Your task to perform on an android device: Search for sushi restaurants on Maps Image 0: 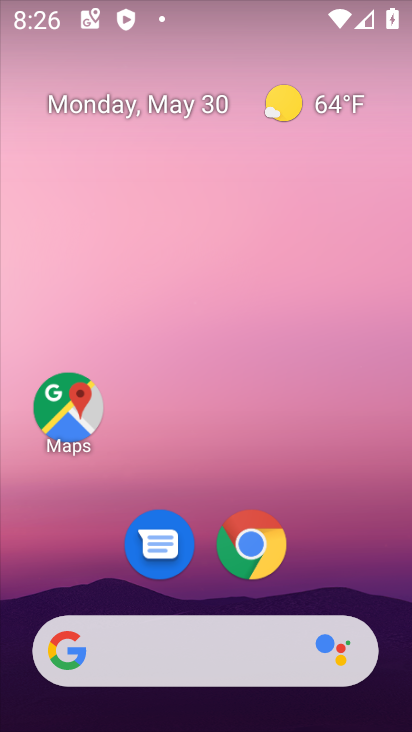
Step 0: click (65, 399)
Your task to perform on an android device: Search for sushi restaurants on Maps Image 1: 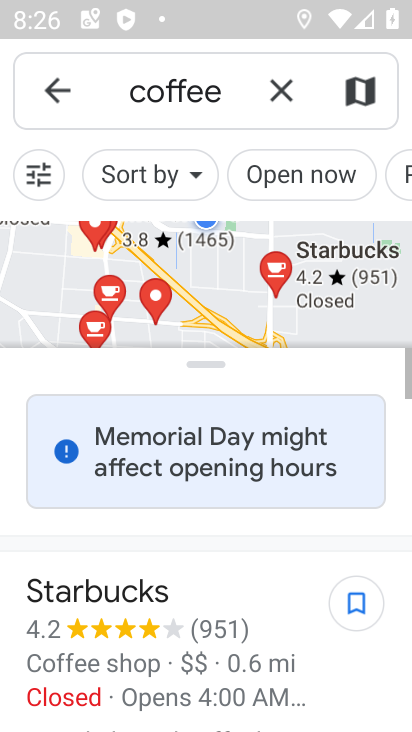
Step 1: click (271, 95)
Your task to perform on an android device: Search for sushi restaurants on Maps Image 2: 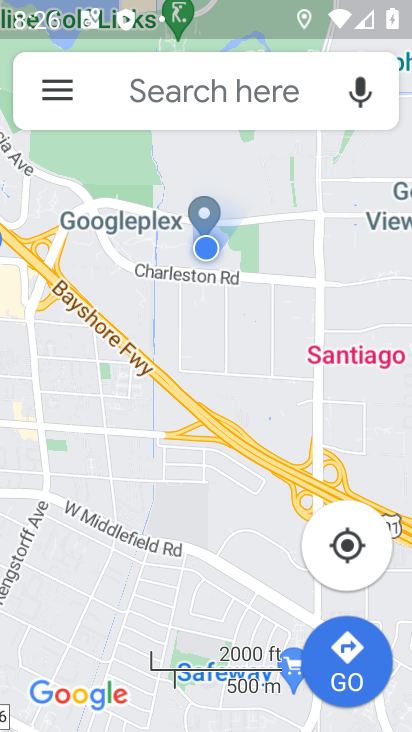
Step 2: click (256, 93)
Your task to perform on an android device: Search for sushi restaurants on Maps Image 3: 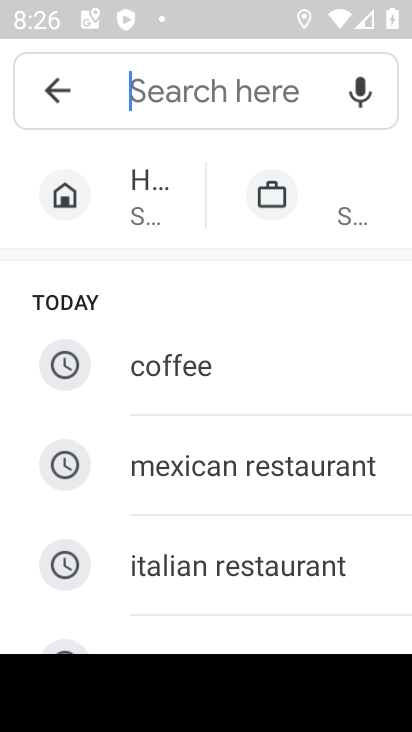
Step 3: drag from (270, 524) to (204, 144)
Your task to perform on an android device: Search for sushi restaurants on Maps Image 4: 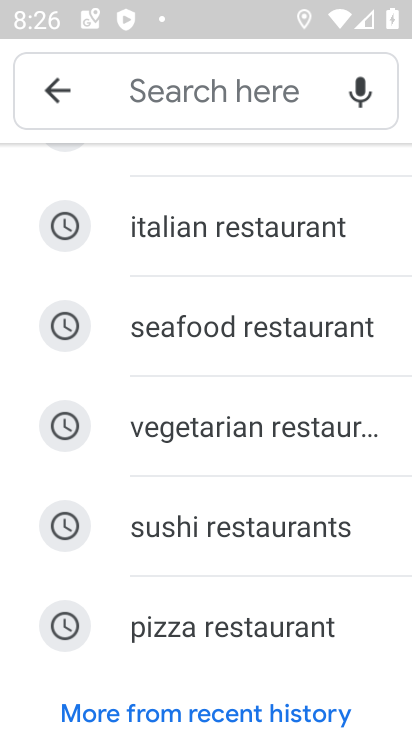
Step 4: click (265, 516)
Your task to perform on an android device: Search for sushi restaurants on Maps Image 5: 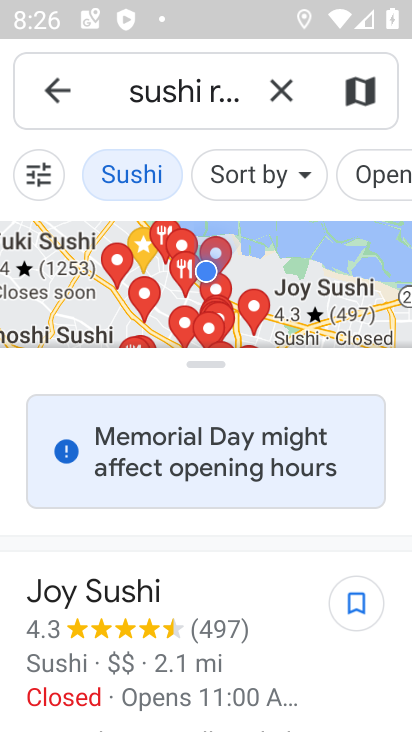
Step 5: task complete